Your task to perform on an android device: check android version Image 0: 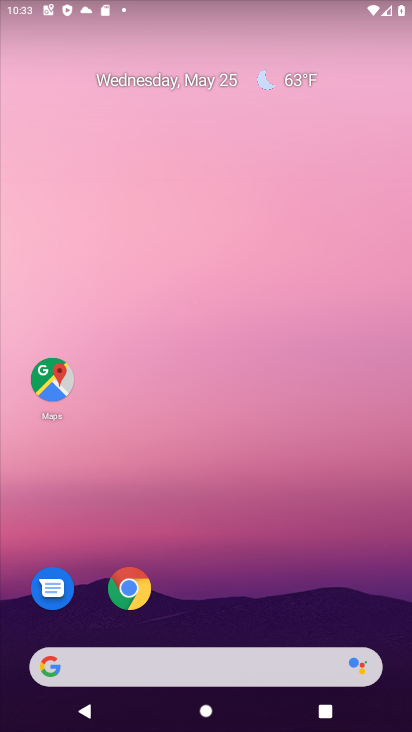
Step 0: drag from (318, 627) to (299, 74)
Your task to perform on an android device: check android version Image 1: 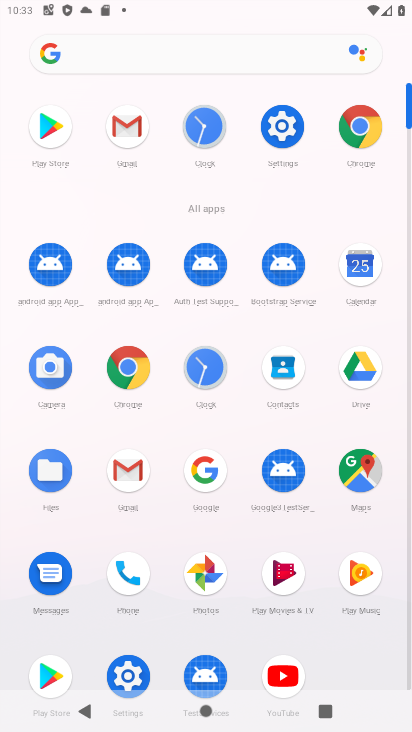
Step 1: click (121, 681)
Your task to perform on an android device: check android version Image 2: 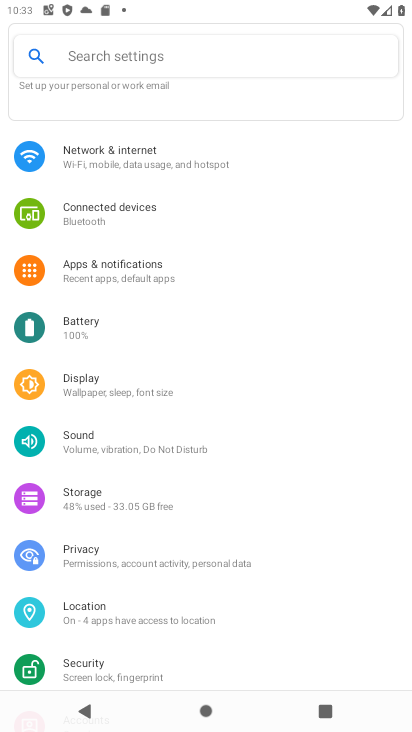
Step 2: drag from (222, 642) to (274, 61)
Your task to perform on an android device: check android version Image 3: 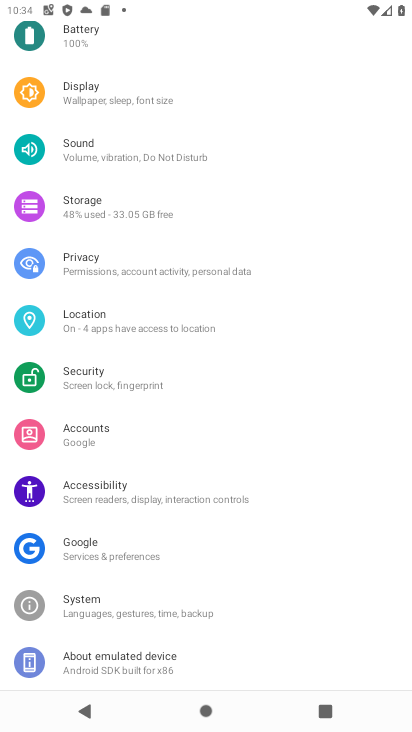
Step 3: click (133, 664)
Your task to perform on an android device: check android version Image 4: 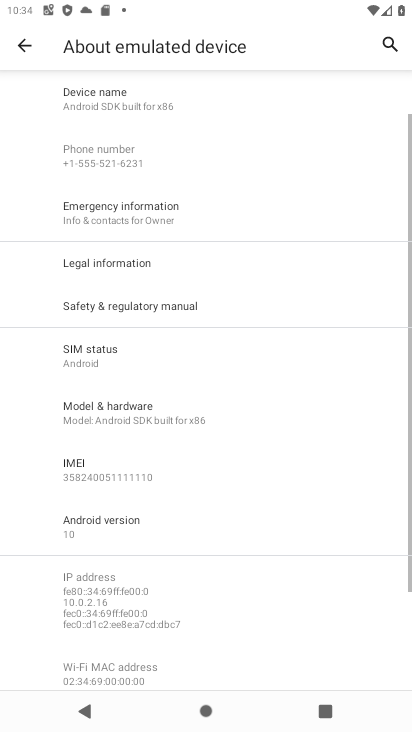
Step 4: click (127, 526)
Your task to perform on an android device: check android version Image 5: 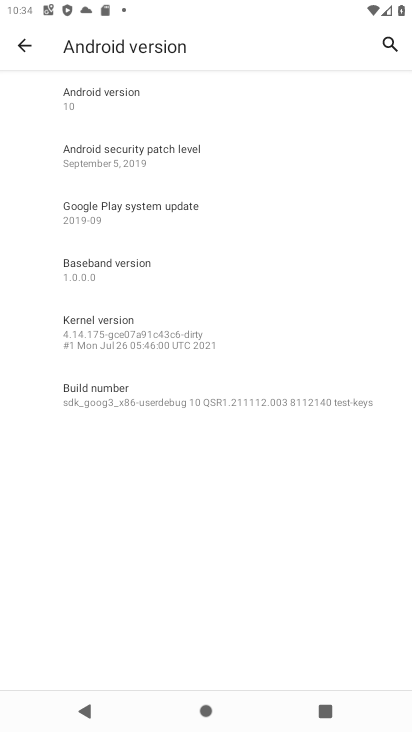
Step 5: task complete